Your task to perform on an android device: What's on my calendar tomorrow? Image 0: 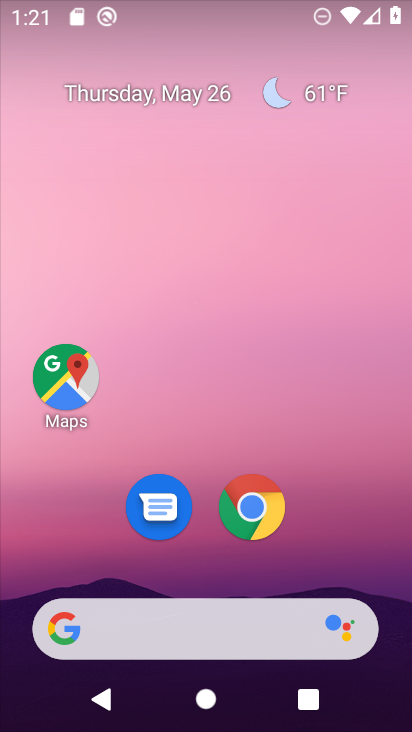
Step 0: drag from (360, 562) to (289, 0)
Your task to perform on an android device: What's on my calendar tomorrow? Image 1: 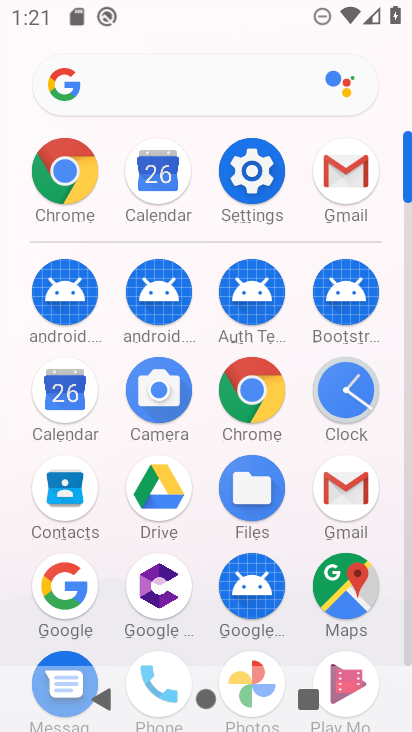
Step 1: click (162, 195)
Your task to perform on an android device: What's on my calendar tomorrow? Image 2: 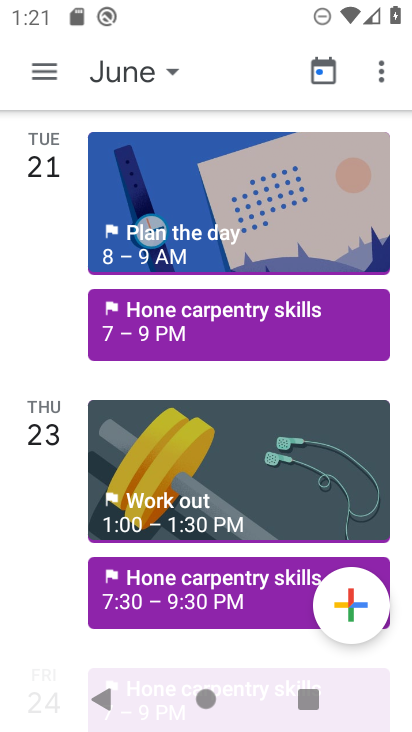
Step 2: task complete